Your task to perform on an android device: change keyboard looks Image 0: 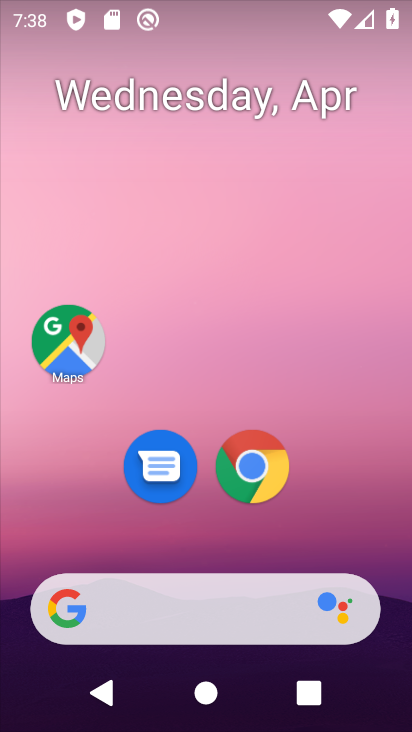
Step 0: drag from (308, 519) to (327, 200)
Your task to perform on an android device: change keyboard looks Image 1: 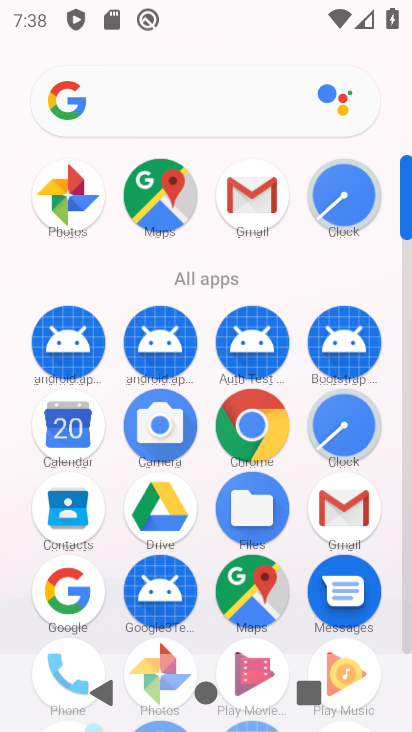
Step 1: drag from (300, 560) to (288, 345)
Your task to perform on an android device: change keyboard looks Image 2: 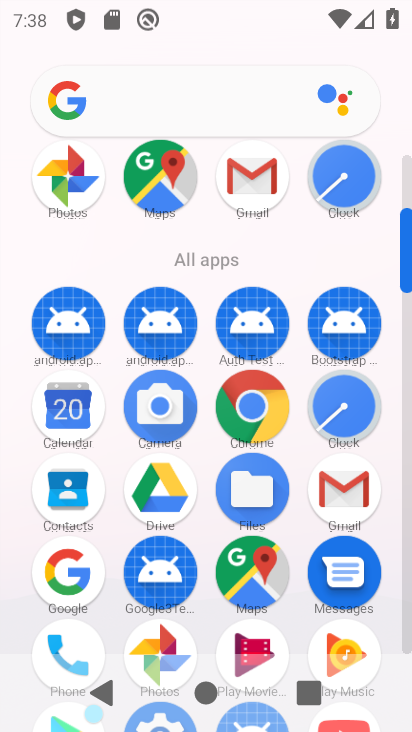
Step 2: drag from (303, 628) to (287, 209)
Your task to perform on an android device: change keyboard looks Image 3: 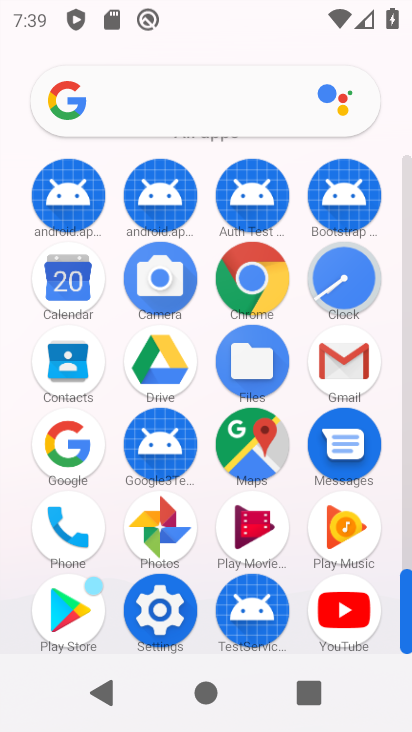
Step 3: click (170, 616)
Your task to perform on an android device: change keyboard looks Image 4: 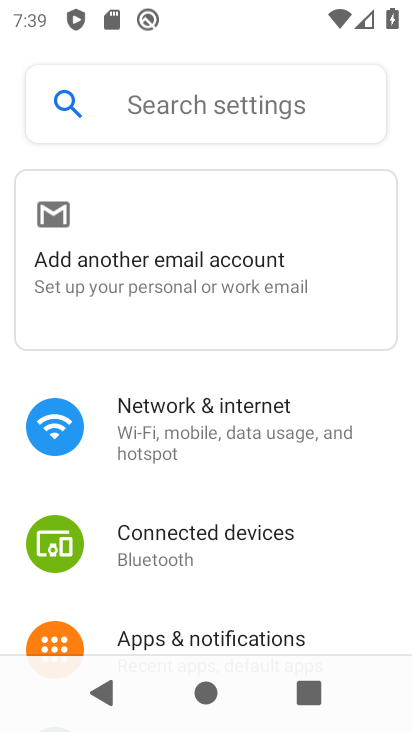
Step 4: drag from (242, 603) to (270, 182)
Your task to perform on an android device: change keyboard looks Image 5: 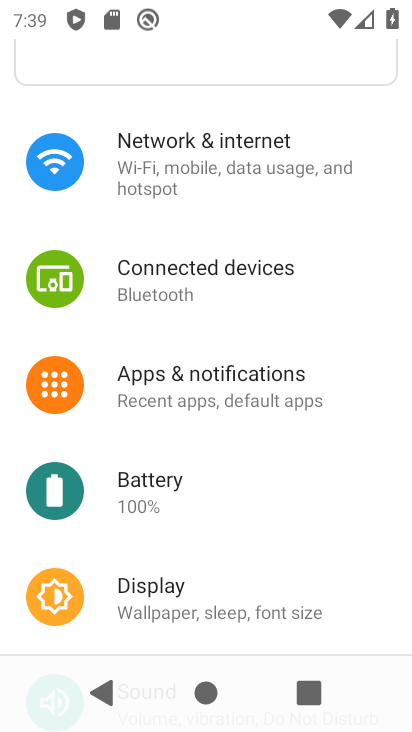
Step 5: drag from (216, 307) to (211, 87)
Your task to perform on an android device: change keyboard looks Image 6: 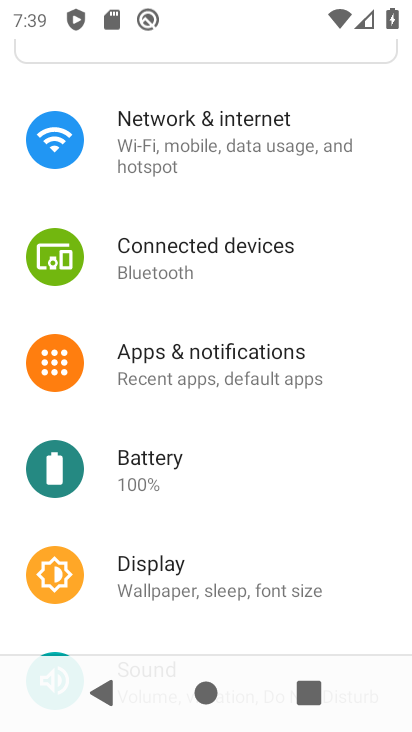
Step 6: drag from (239, 581) to (250, 168)
Your task to perform on an android device: change keyboard looks Image 7: 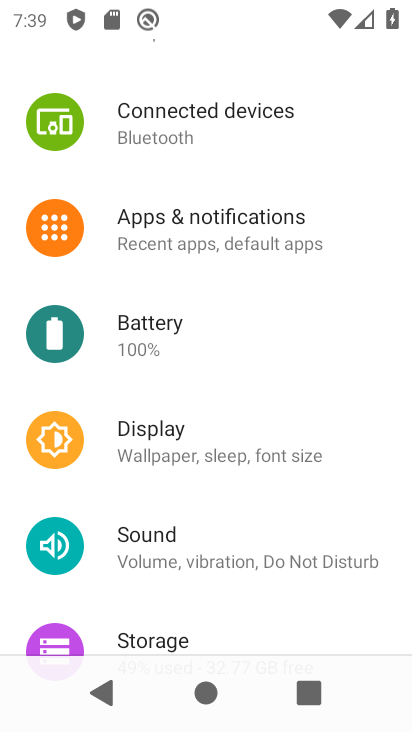
Step 7: drag from (221, 512) to (184, 140)
Your task to perform on an android device: change keyboard looks Image 8: 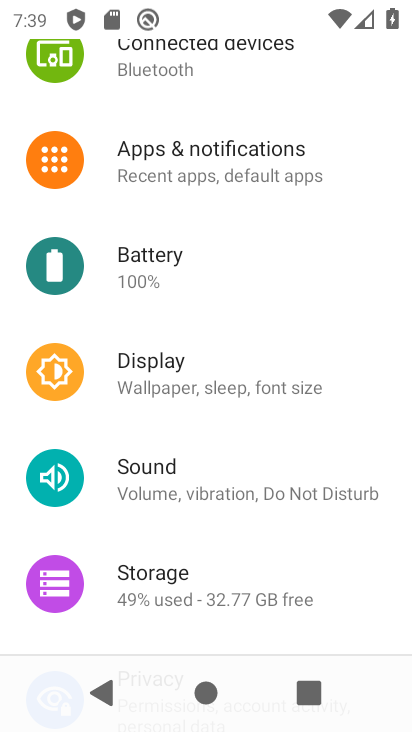
Step 8: drag from (200, 556) to (159, 145)
Your task to perform on an android device: change keyboard looks Image 9: 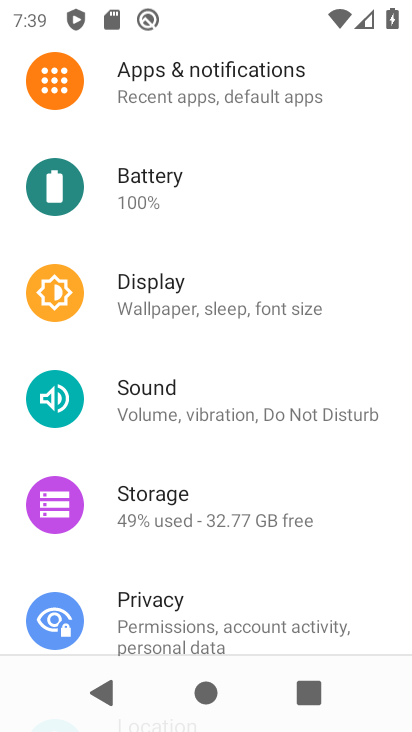
Step 9: drag from (167, 384) to (171, 248)
Your task to perform on an android device: change keyboard looks Image 10: 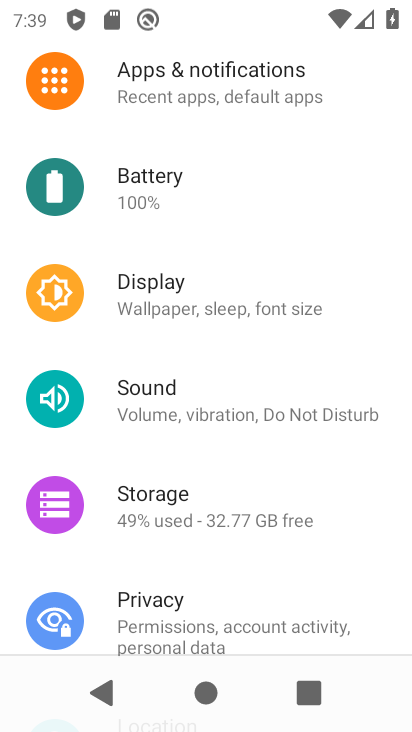
Step 10: drag from (216, 394) to (237, 193)
Your task to perform on an android device: change keyboard looks Image 11: 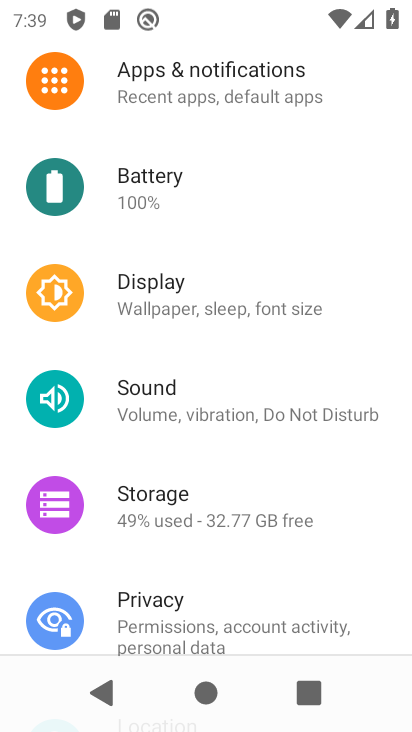
Step 11: drag from (205, 590) to (184, 216)
Your task to perform on an android device: change keyboard looks Image 12: 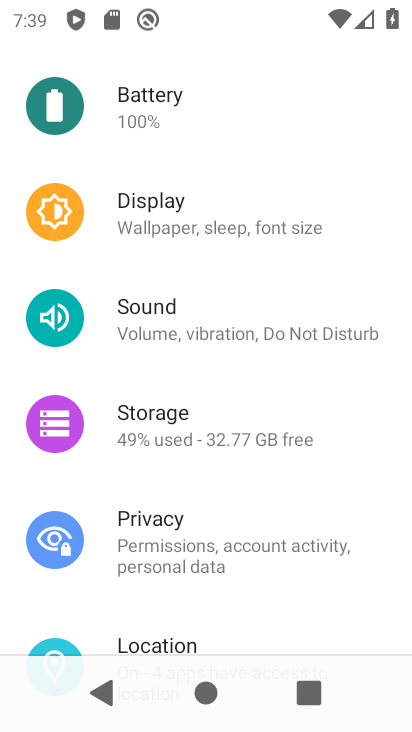
Step 12: drag from (218, 610) to (233, 247)
Your task to perform on an android device: change keyboard looks Image 13: 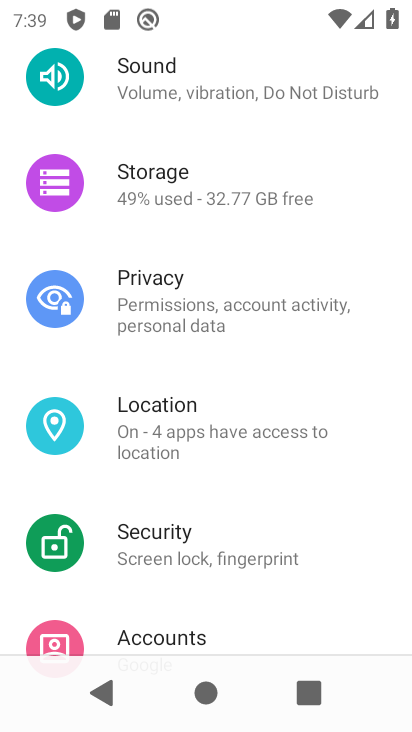
Step 13: drag from (200, 582) to (158, 167)
Your task to perform on an android device: change keyboard looks Image 14: 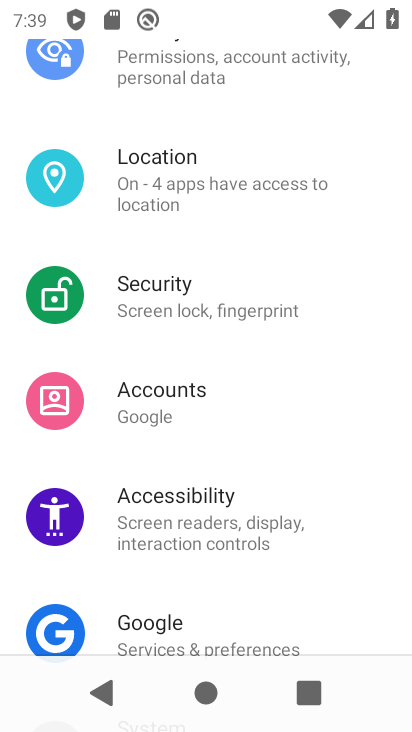
Step 14: drag from (242, 472) to (281, 134)
Your task to perform on an android device: change keyboard looks Image 15: 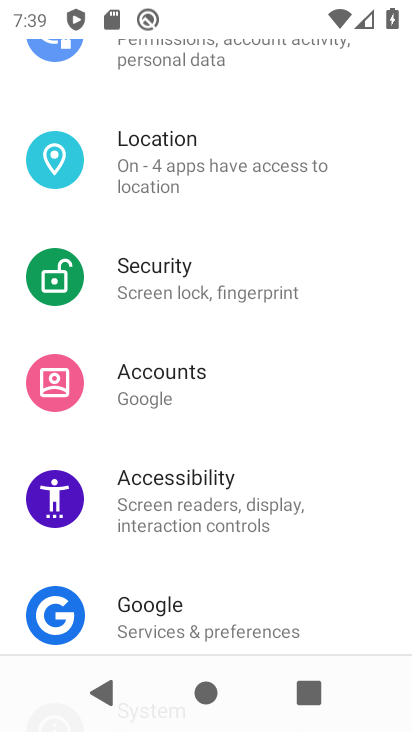
Step 15: drag from (273, 537) to (312, 157)
Your task to perform on an android device: change keyboard looks Image 16: 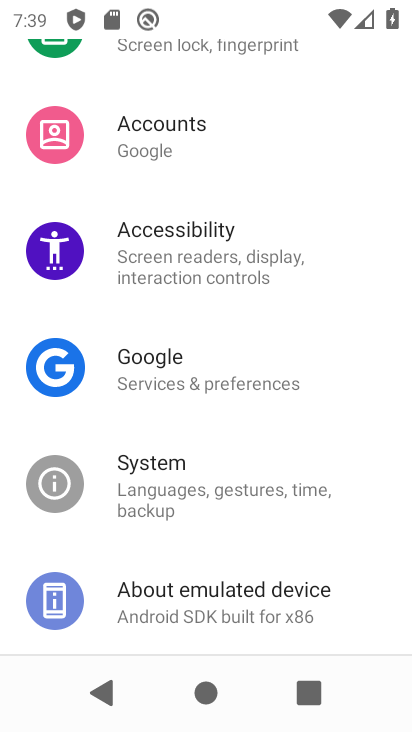
Step 16: click (185, 493)
Your task to perform on an android device: change keyboard looks Image 17: 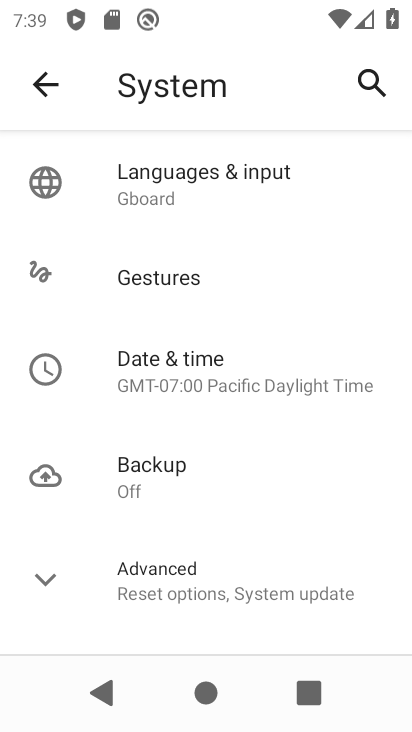
Step 17: click (156, 187)
Your task to perform on an android device: change keyboard looks Image 18: 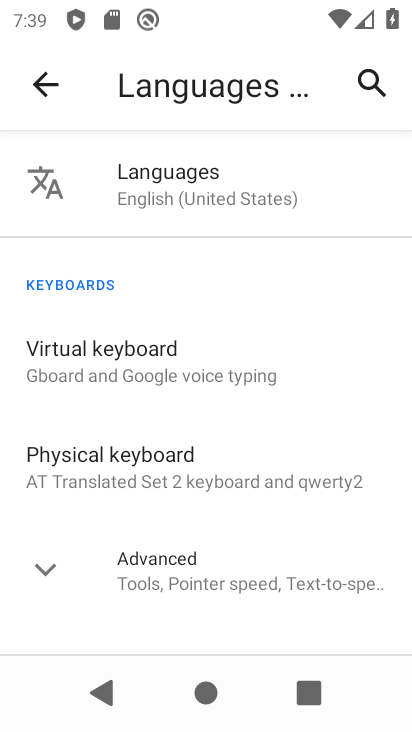
Step 18: click (63, 385)
Your task to perform on an android device: change keyboard looks Image 19: 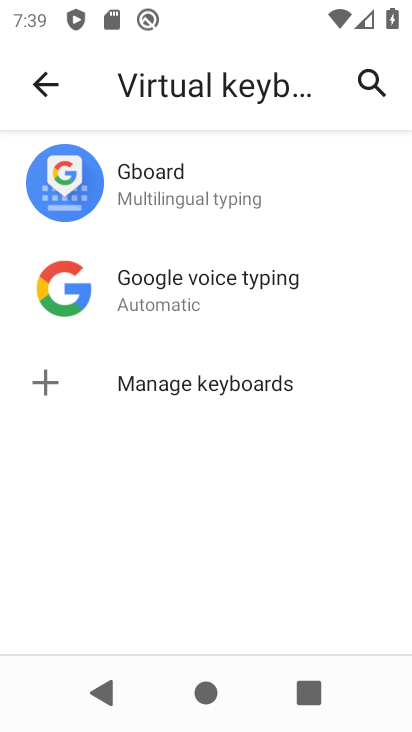
Step 19: click (131, 200)
Your task to perform on an android device: change keyboard looks Image 20: 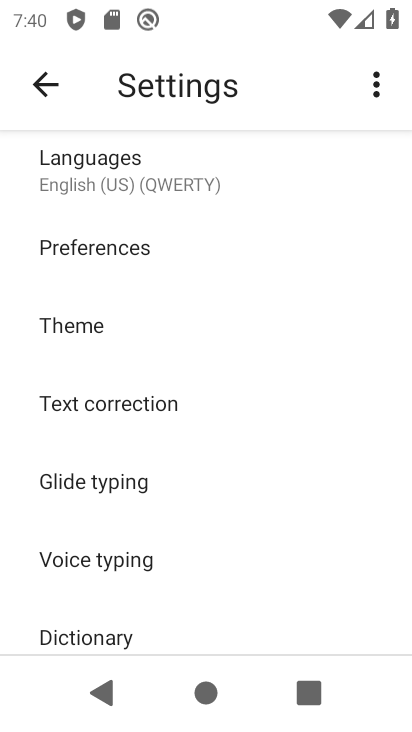
Step 20: click (68, 335)
Your task to perform on an android device: change keyboard looks Image 21: 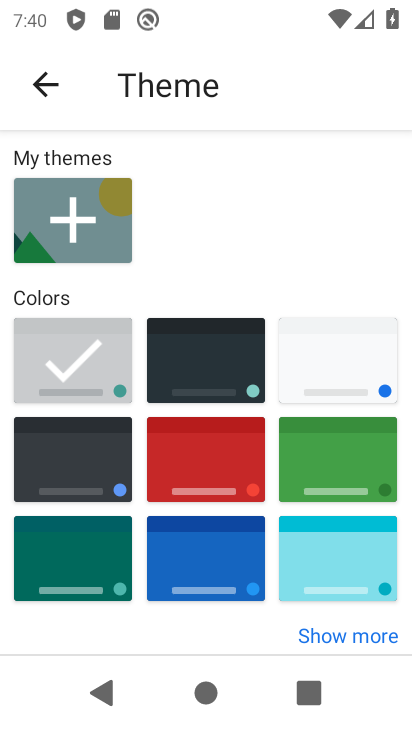
Step 21: click (191, 381)
Your task to perform on an android device: change keyboard looks Image 22: 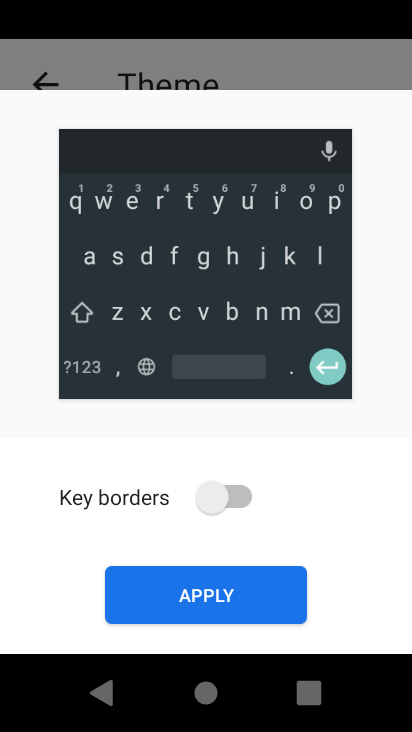
Step 22: click (232, 593)
Your task to perform on an android device: change keyboard looks Image 23: 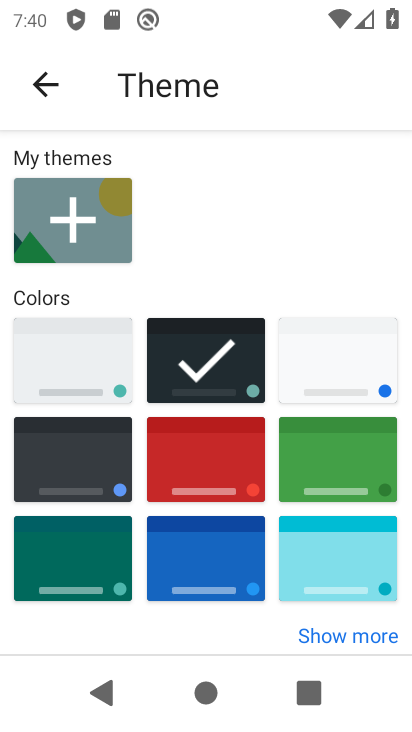
Step 23: task complete